Your task to perform on an android device: add a contact Image 0: 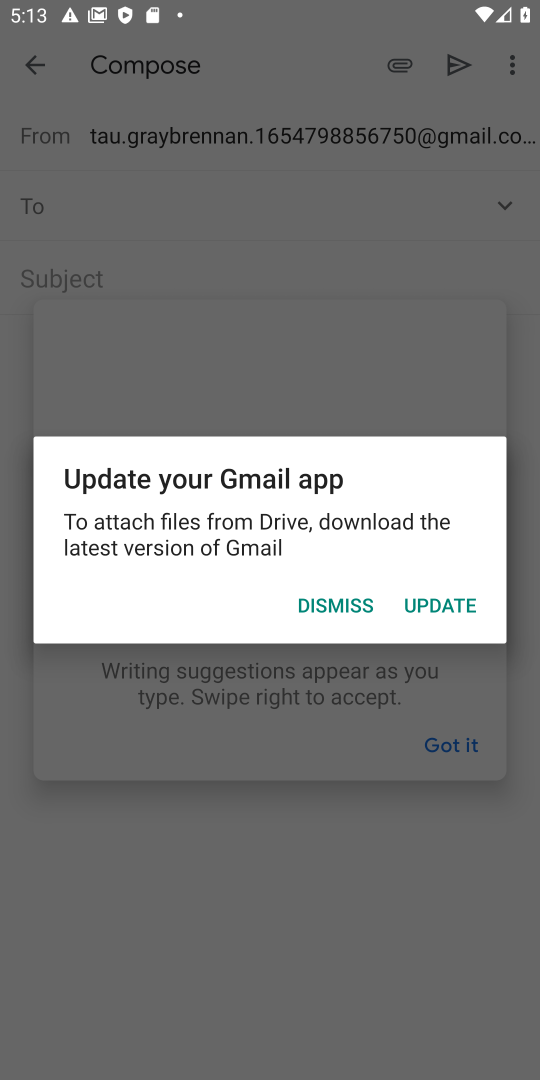
Step 0: press home button
Your task to perform on an android device: add a contact Image 1: 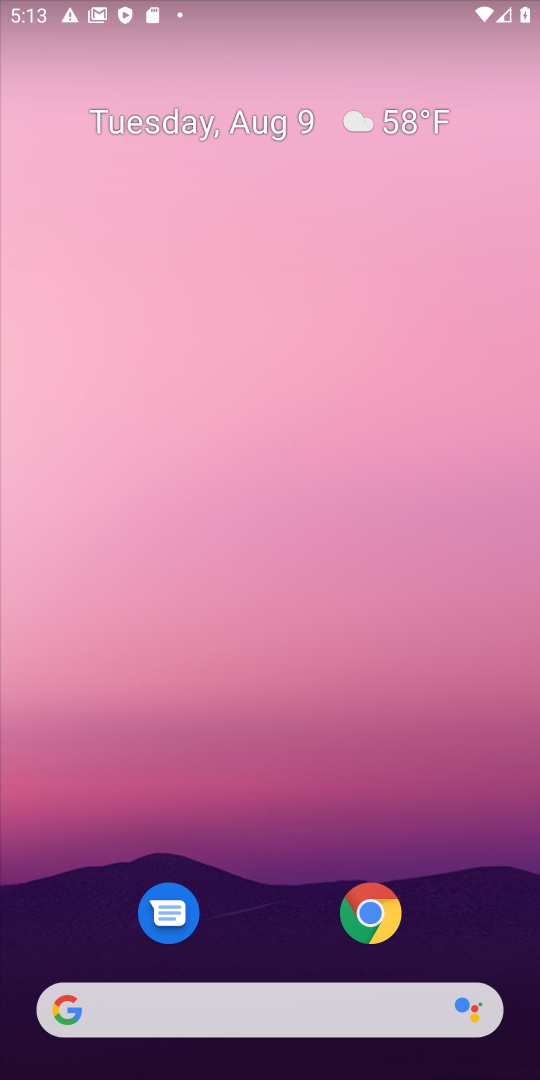
Step 1: drag from (269, 885) to (239, 20)
Your task to perform on an android device: add a contact Image 2: 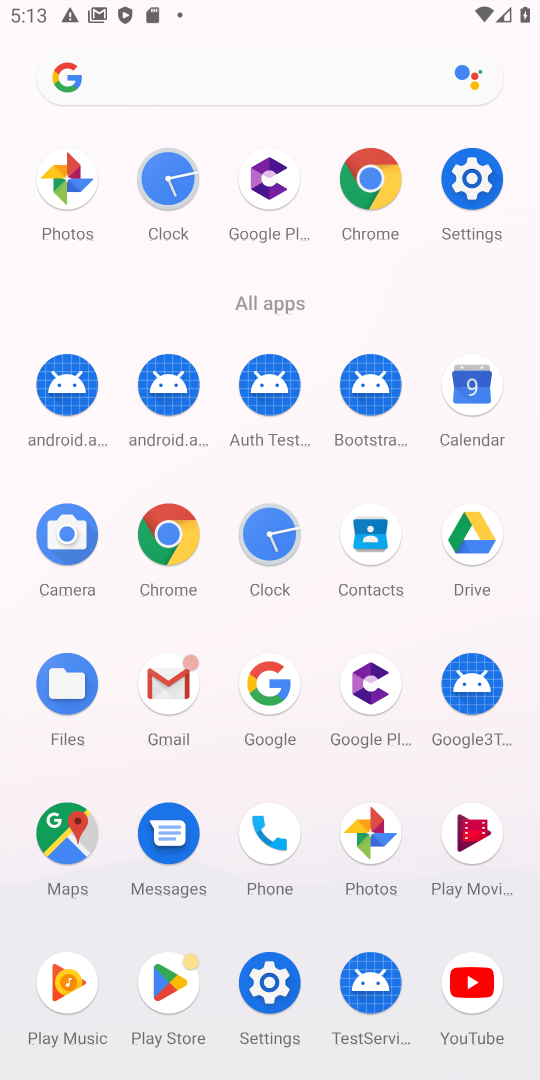
Step 2: click (366, 537)
Your task to perform on an android device: add a contact Image 3: 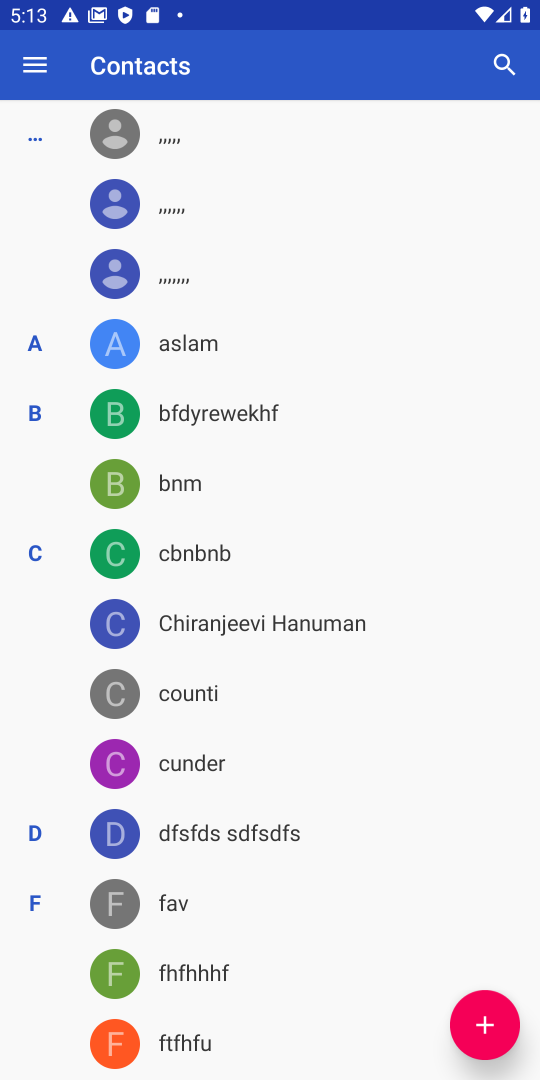
Step 3: click (482, 1021)
Your task to perform on an android device: add a contact Image 4: 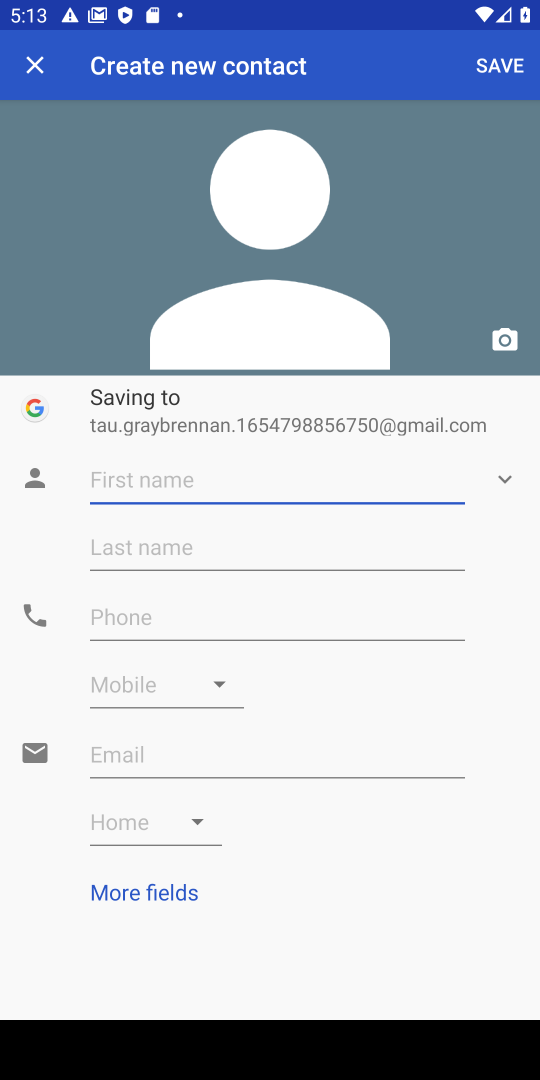
Step 4: type "uyytyhji"
Your task to perform on an android device: add a contact Image 5: 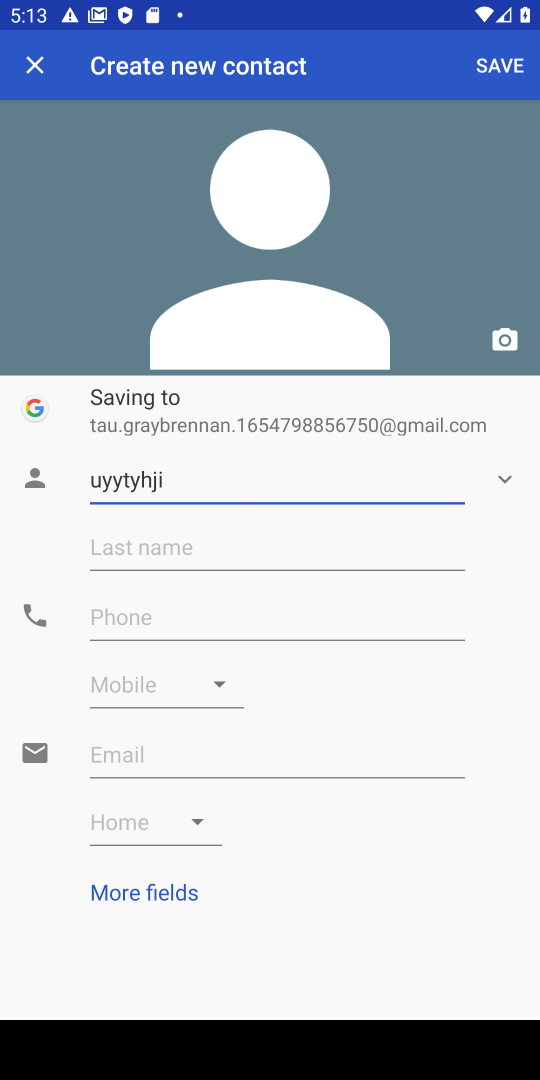
Step 5: click (163, 626)
Your task to perform on an android device: add a contact Image 6: 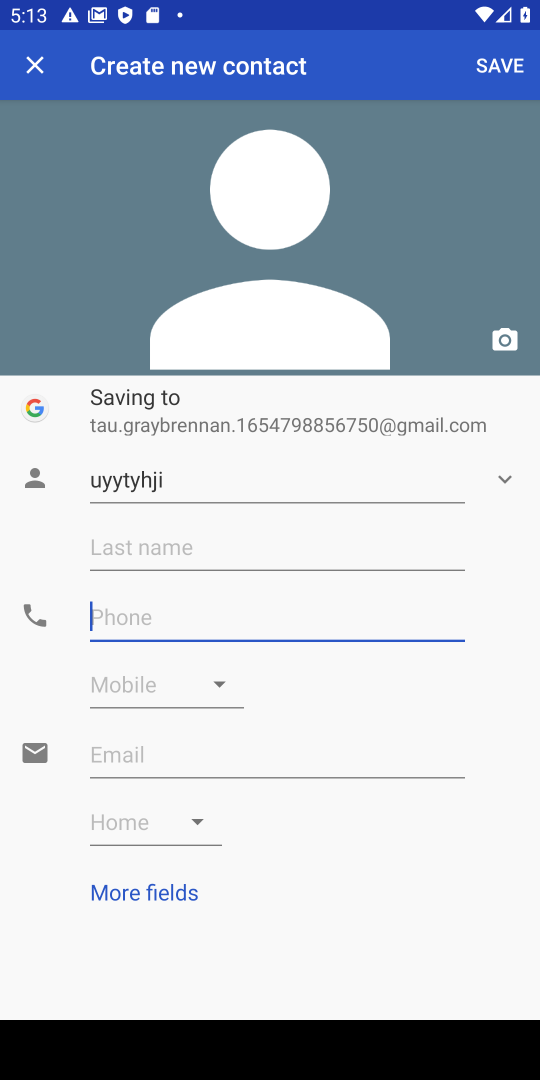
Step 6: type "6767689878"
Your task to perform on an android device: add a contact Image 7: 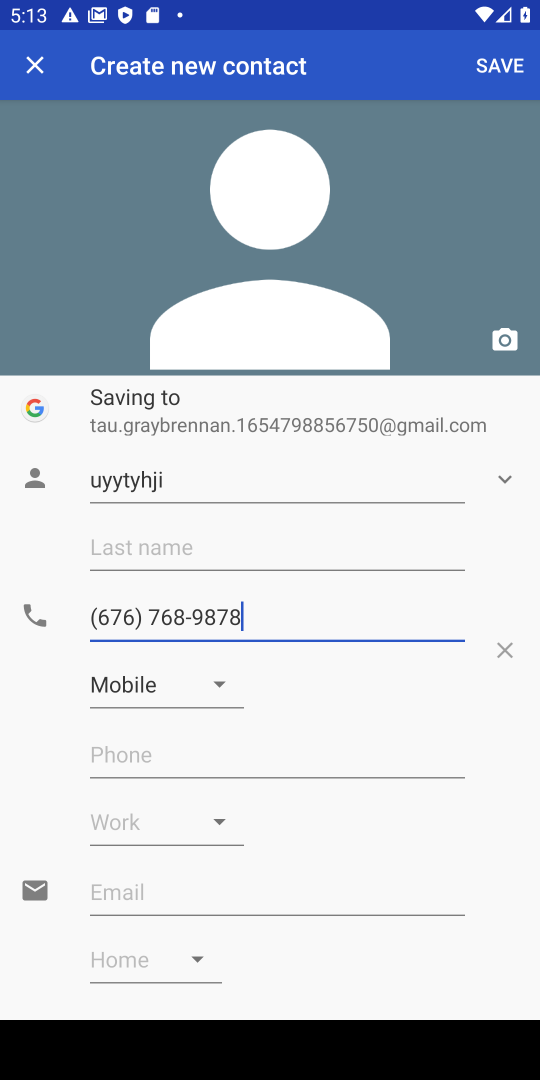
Step 7: click (504, 54)
Your task to perform on an android device: add a contact Image 8: 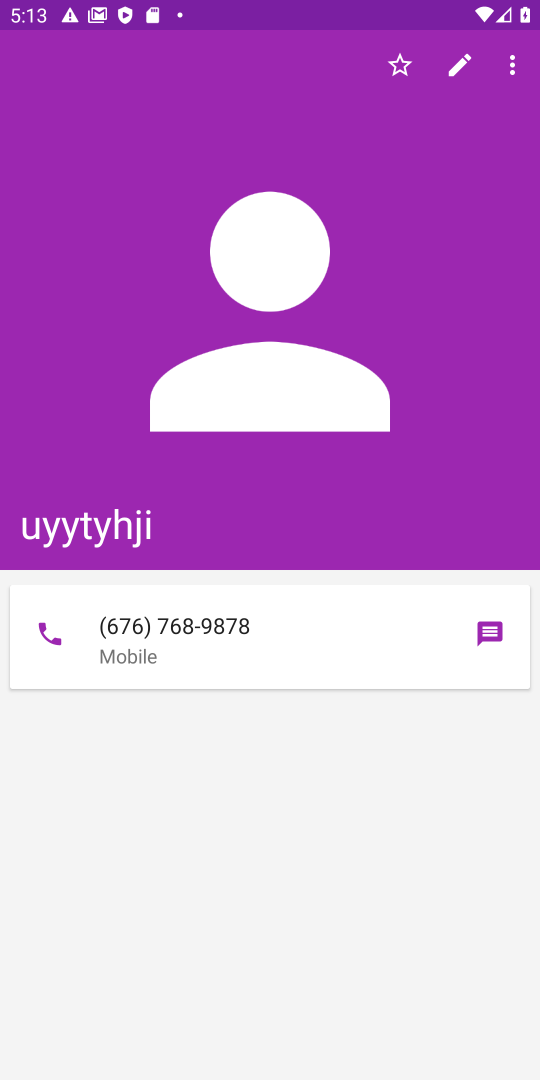
Step 8: task complete